Your task to perform on an android device: Go to sound settings Image 0: 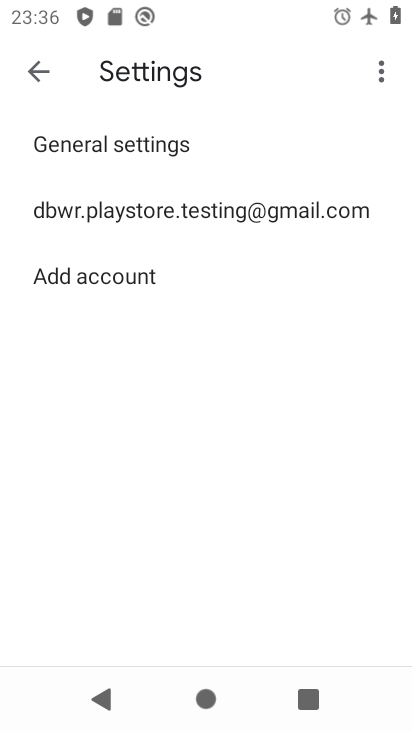
Step 0: drag from (233, 5) to (189, 717)
Your task to perform on an android device: Go to sound settings Image 1: 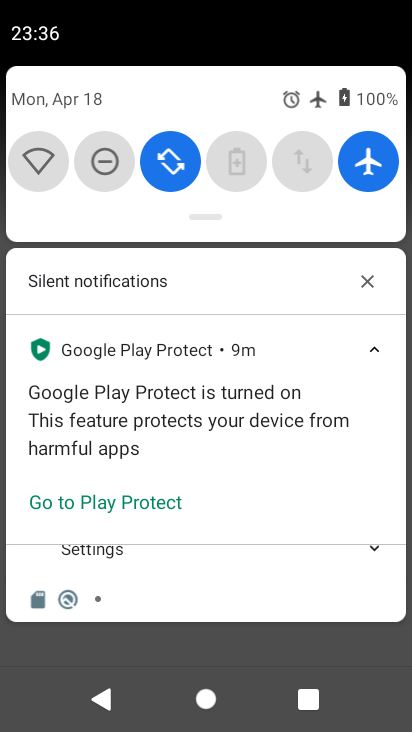
Step 1: drag from (206, 110) to (260, 612)
Your task to perform on an android device: Go to sound settings Image 2: 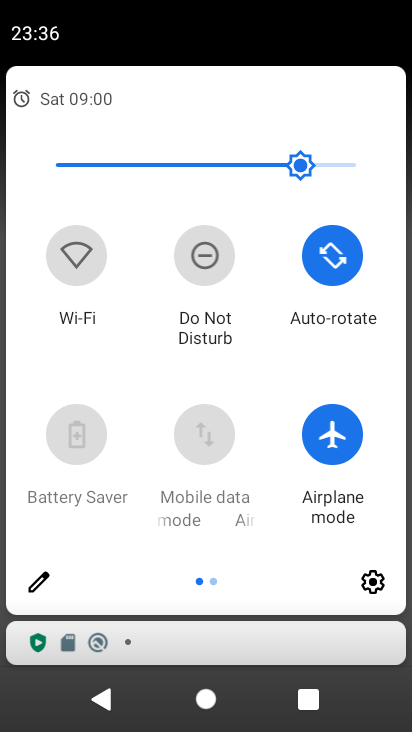
Step 2: click (381, 575)
Your task to perform on an android device: Go to sound settings Image 3: 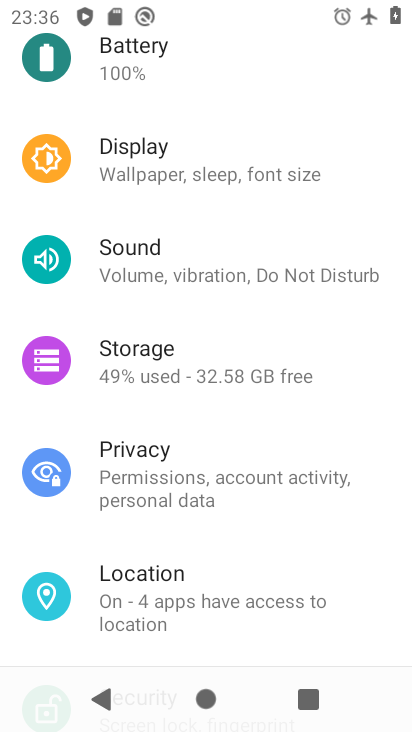
Step 3: click (191, 280)
Your task to perform on an android device: Go to sound settings Image 4: 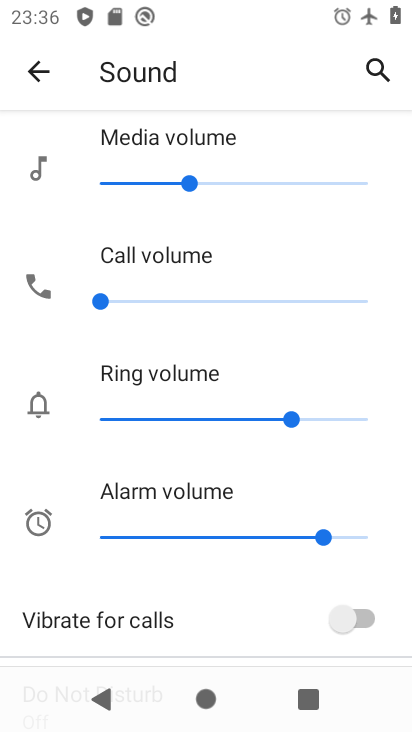
Step 4: task complete